Your task to perform on an android device: turn on improve location accuracy Image 0: 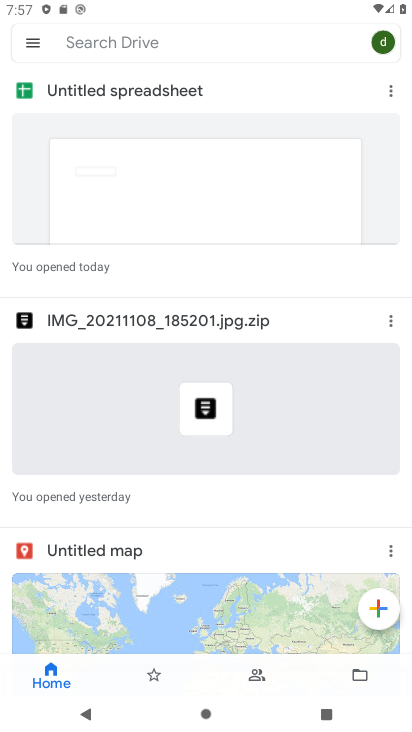
Step 0: press home button
Your task to perform on an android device: turn on improve location accuracy Image 1: 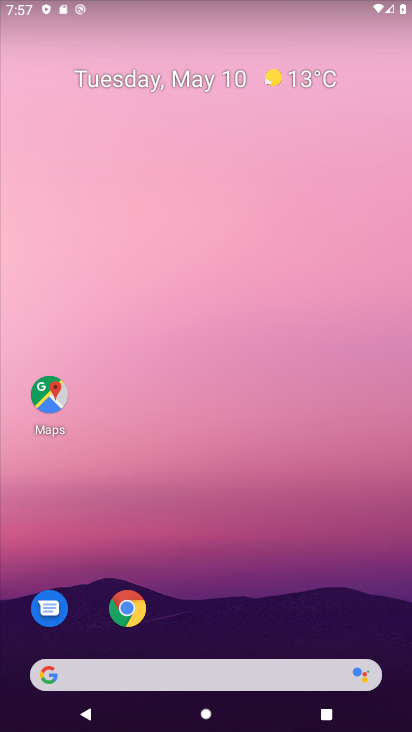
Step 1: drag from (146, 676) to (296, 66)
Your task to perform on an android device: turn on improve location accuracy Image 2: 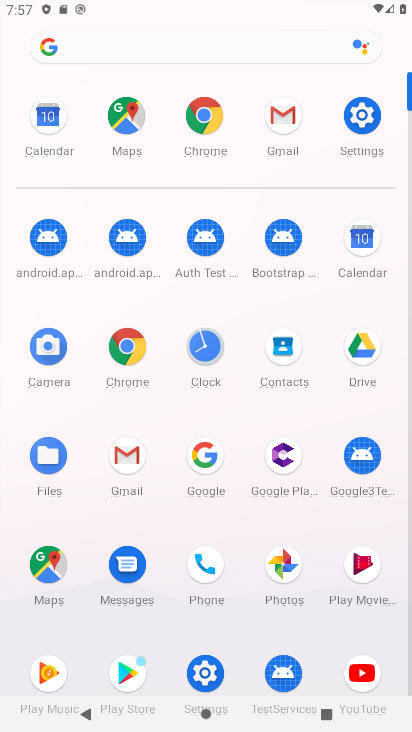
Step 2: click (355, 119)
Your task to perform on an android device: turn on improve location accuracy Image 3: 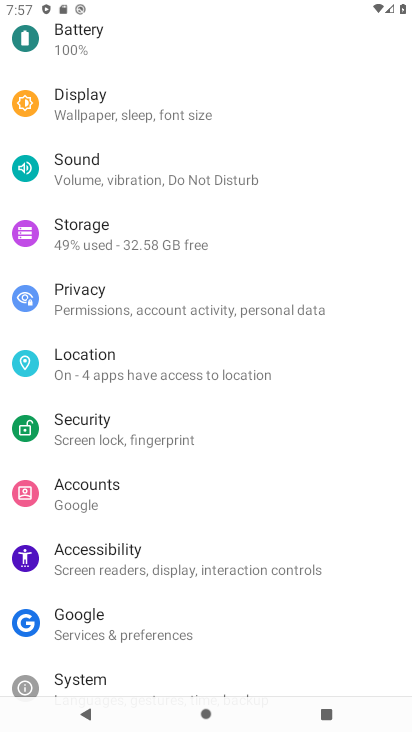
Step 3: click (142, 368)
Your task to perform on an android device: turn on improve location accuracy Image 4: 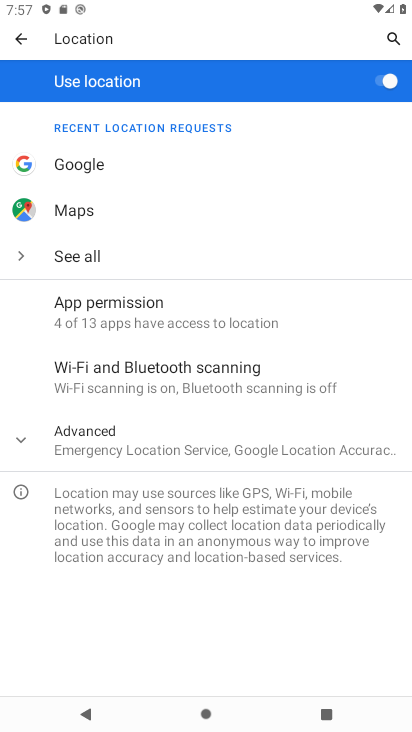
Step 4: click (77, 438)
Your task to perform on an android device: turn on improve location accuracy Image 5: 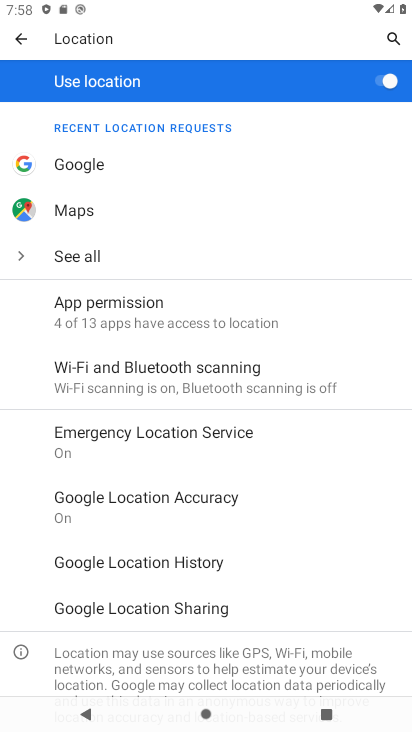
Step 5: click (119, 507)
Your task to perform on an android device: turn on improve location accuracy Image 6: 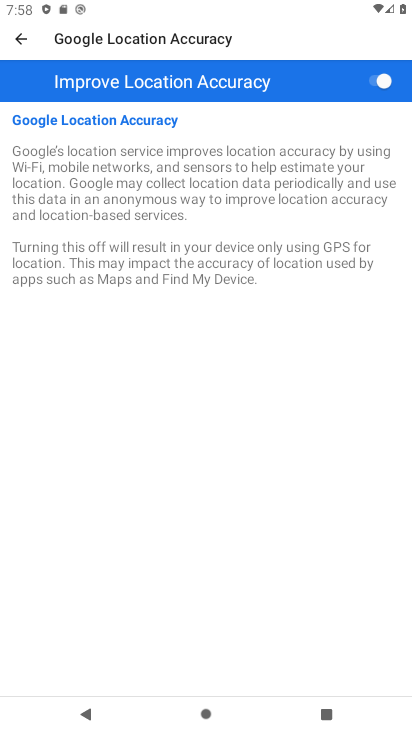
Step 6: task complete